Your task to perform on an android device: delete location history Image 0: 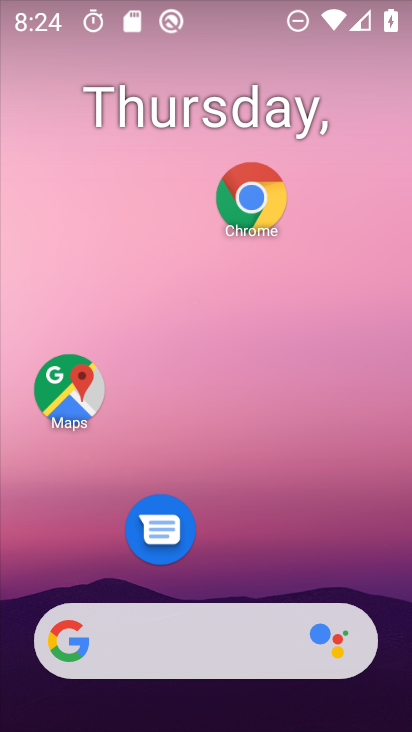
Step 0: drag from (253, 573) to (183, 4)
Your task to perform on an android device: delete location history Image 1: 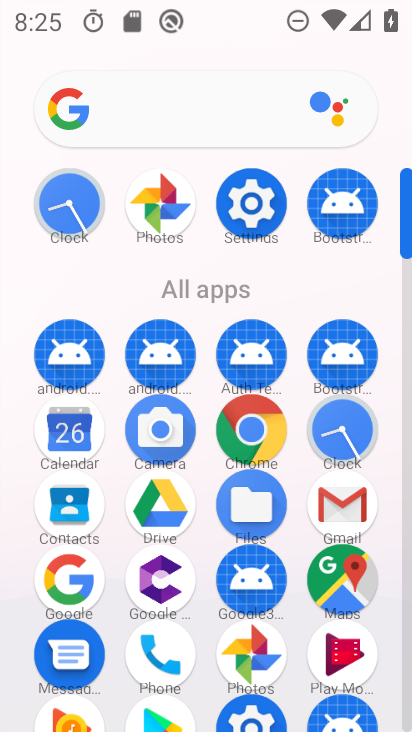
Step 1: click (263, 216)
Your task to perform on an android device: delete location history Image 2: 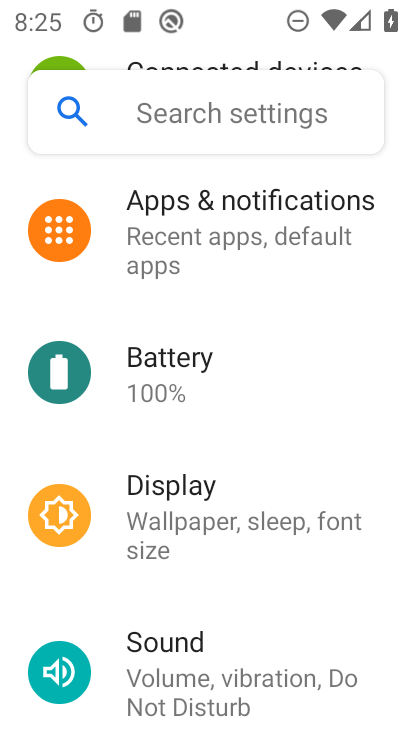
Step 2: drag from (210, 632) to (227, 245)
Your task to perform on an android device: delete location history Image 3: 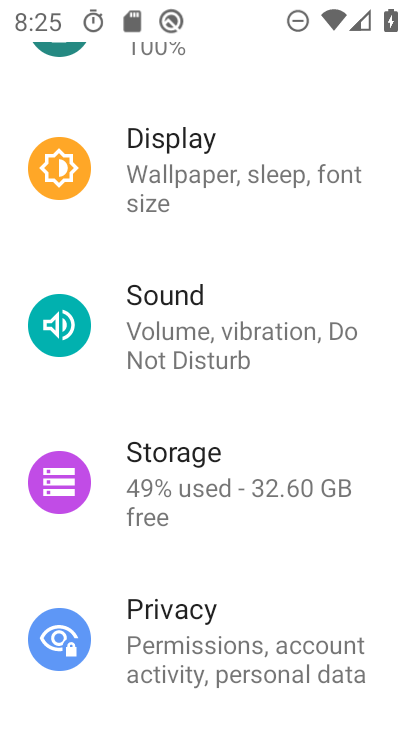
Step 3: drag from (197, 557) to (225, 290)
Your task to perform on an android device: delete location history Image 4: 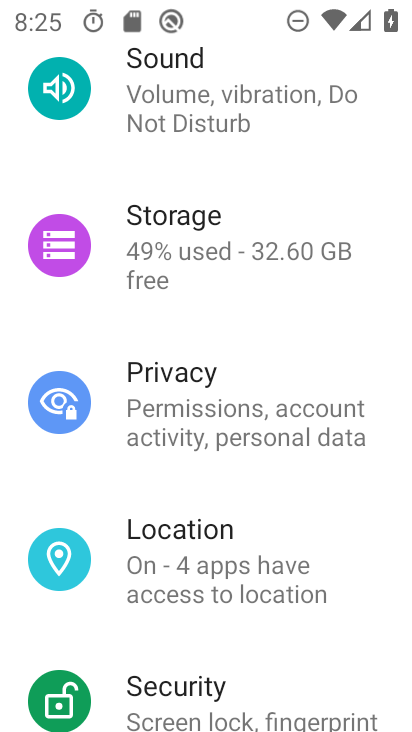
Step 4: click (230, 570)
Your task to perform on an android device: delete location history Image 5: 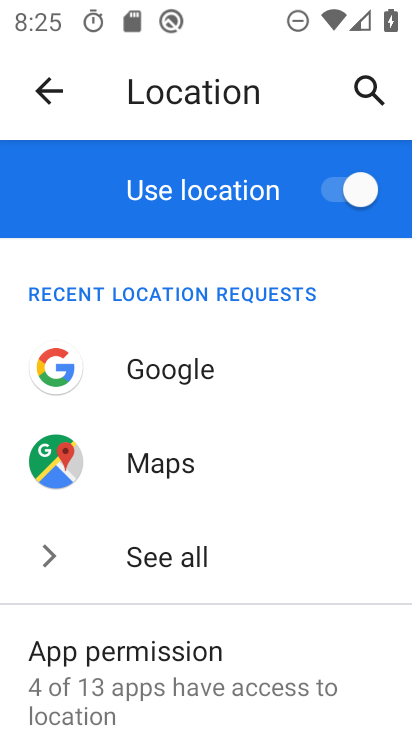
Step 5: drag from (181, 626) to (142, 15)
Your task to perform on an android device: delete location history Image 6: 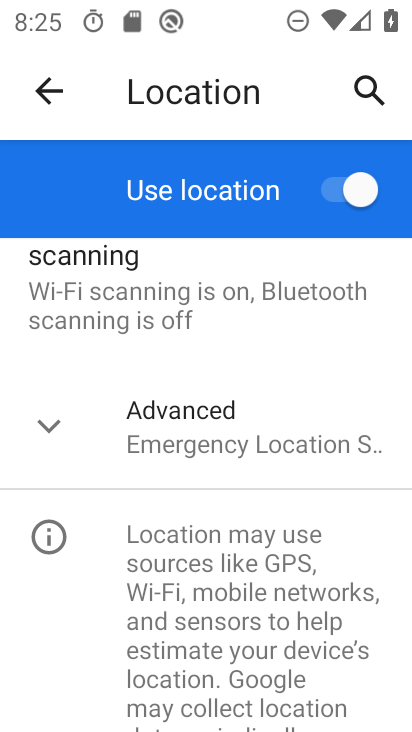
Step 6: click (147, 449)
Your task to perform on an android device: delete location history Image 7: 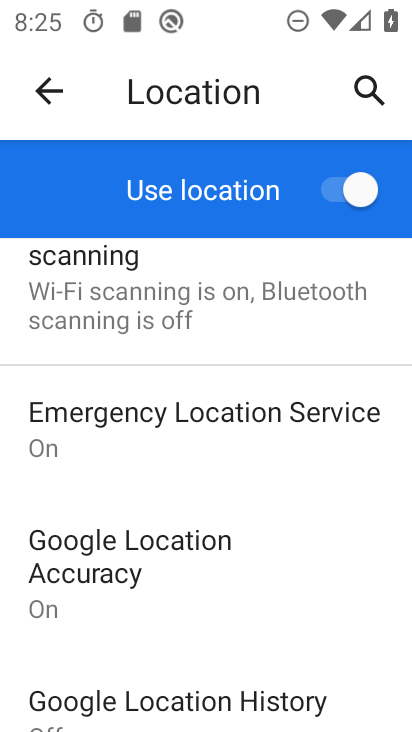
Step 7: drag from (153, 654) to (178, 288)
Your task to perform on an android device: delete location history Image 8: 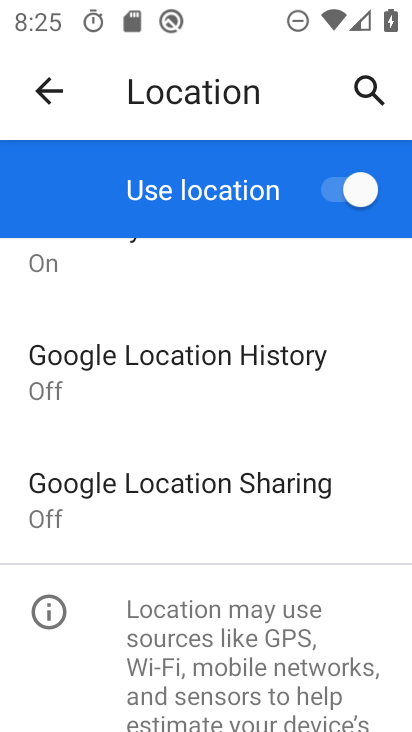
Step 8: click (154, 384)
Your task to perform on an android device: delete location history Image 9: 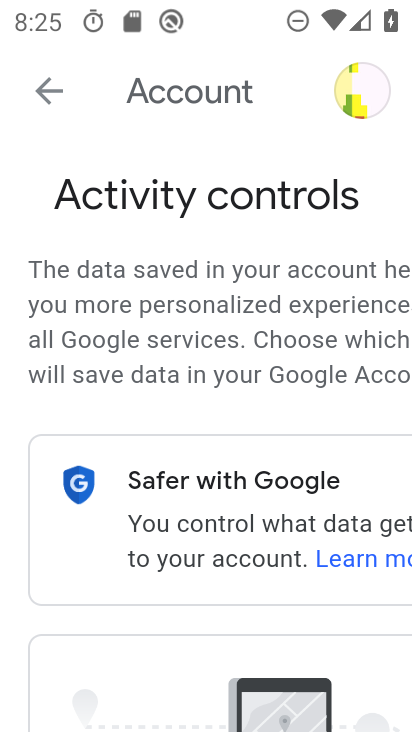
Step 9: drag from (159, 512) to (159, 205)
Your task to perform on an android device: delete location history Image 10: 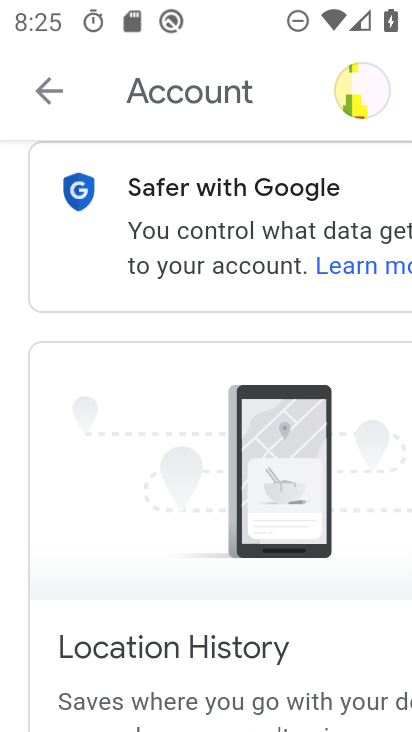
Step 10: drag from (163, 609) to (182, 6)
Your task to perform on an android device: delete location history Image 11: 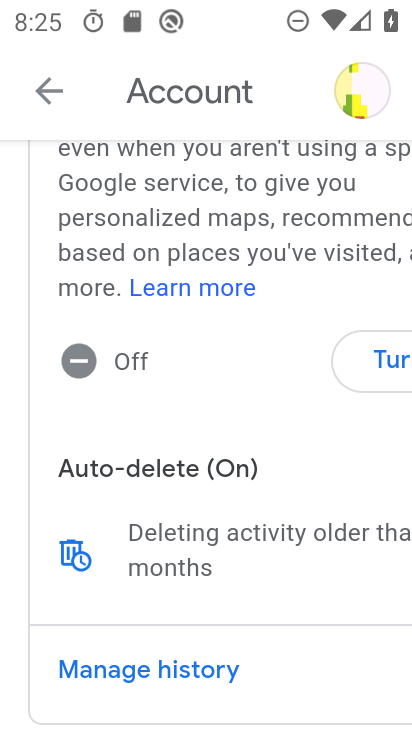
Step 11: click (162, 667)
Your task to perform on an android device: delete location history Image 12: 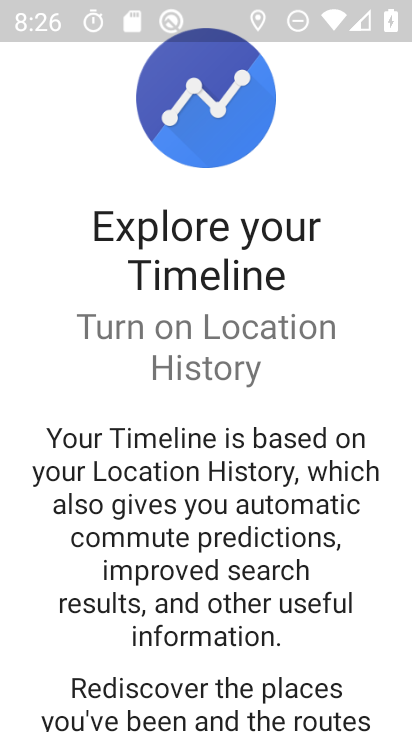
Step 12: drag from (268, 628) to (204, 214)
Your task to perform on an android device: delete location history Image 13: 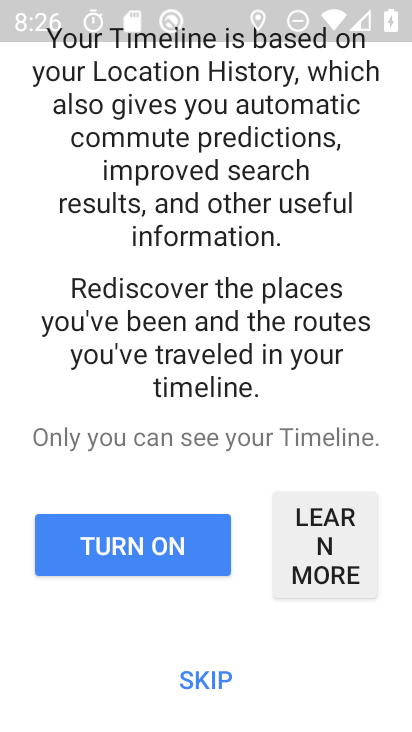
Step 13: click (201, 664)
Your task to perform on an android device: delete location history Image 14: 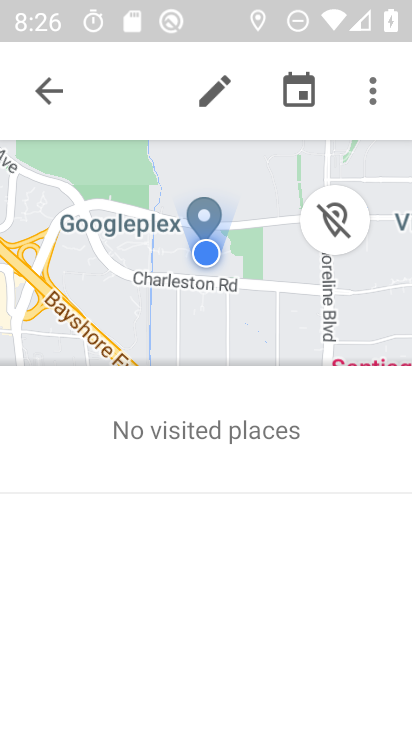
Step 14: click (369, 97)
Your task to perform on an android device: delete location history Image 15: 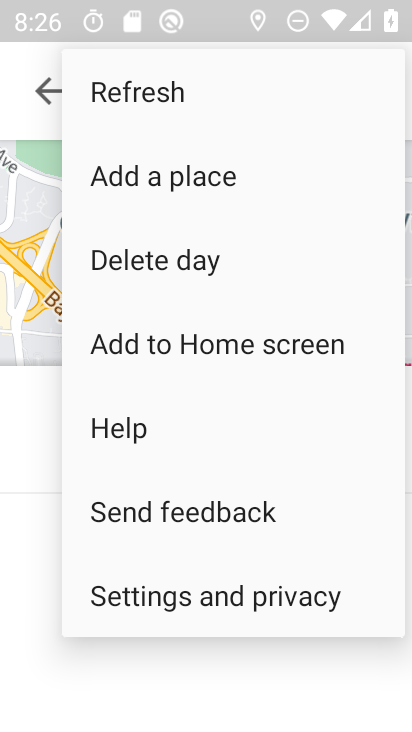
Step 15: click (257, 609)
Your task to perform on an android device: delete location history Image 16: 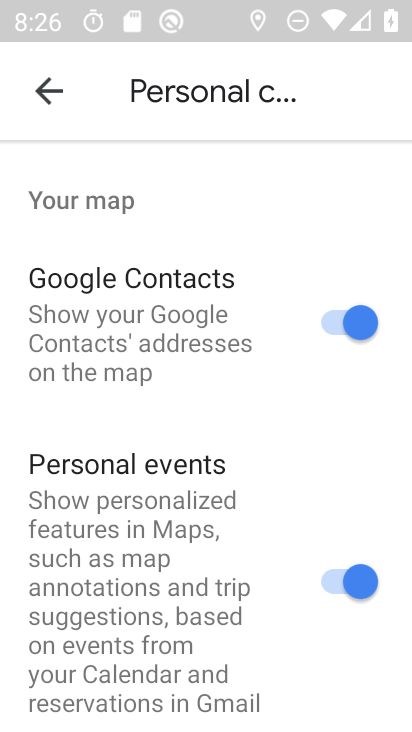
Step 16: drag from (243, 653) to (236, 128)
Your task to perform on an android device: delete location history Image 17: 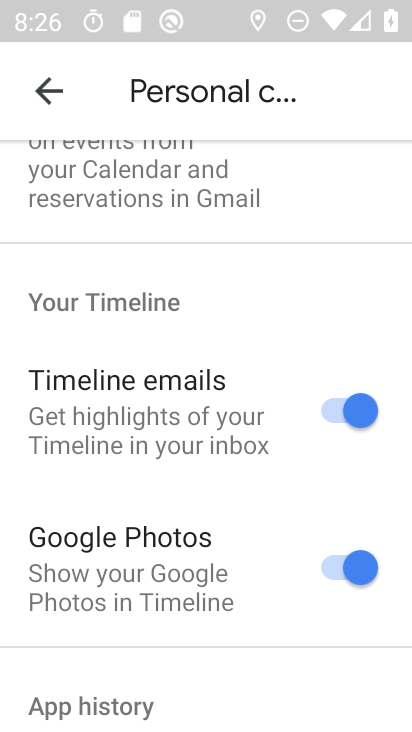
Step 17: drag from (168, 620) to (162, 72)
Your task to perform on an android device: delete location history Image 18: 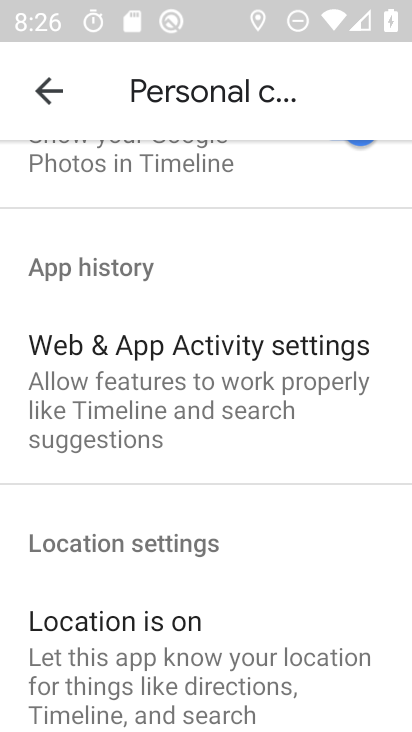
Step 18: drag from (201, 677) to (190, 283)
Your task to perform on an android device: delete location history Image 19: 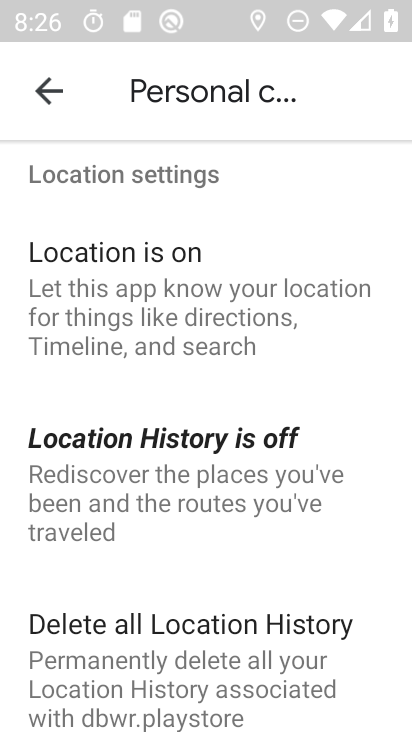
Step 19: click (180, 678)
Your task to perform on an android device: delete location history Image 20: 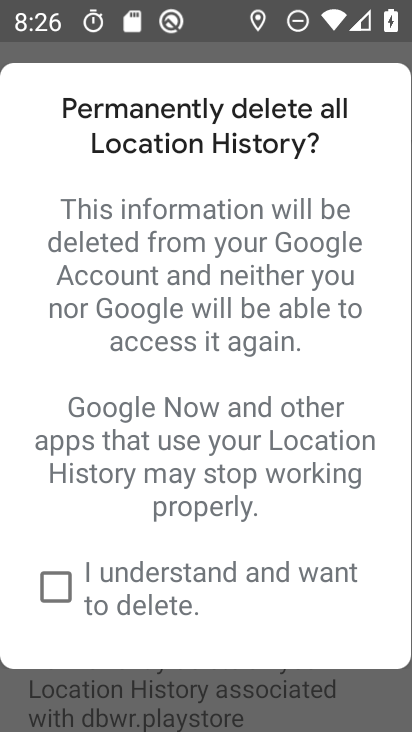
Step 20: click (73, 583)
Your task to perform on an android device: delete location history Image 21: 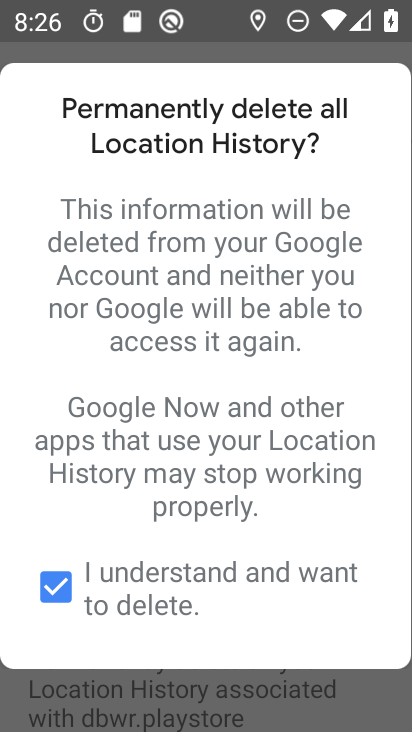
Step 21: drag from (187, 572) to (187, 286)
Your task to perform on an android device: delete location history Image 22: 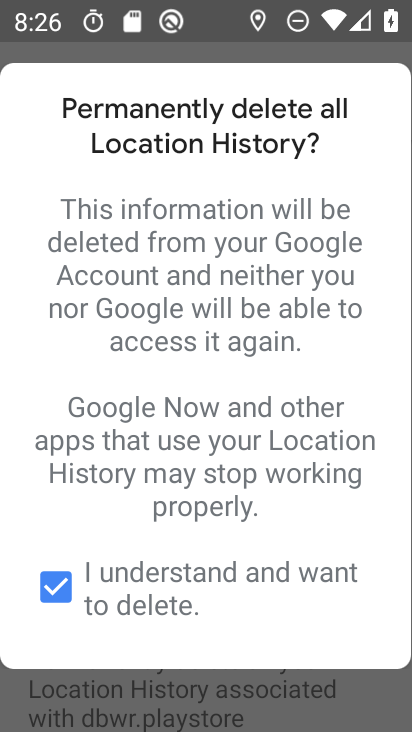
Step 22: click (264, 596)
Your task to perform on an android device: delete location history Image 23: 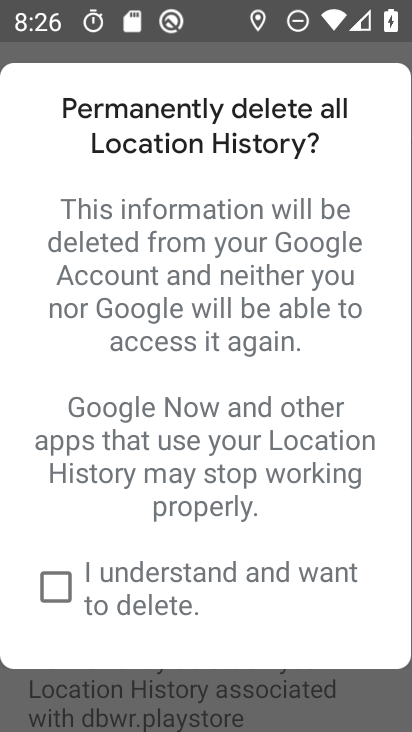
Step 23: task complete